Your task to perform on an android device: toggle priority inbox in the gmail app Image 0: 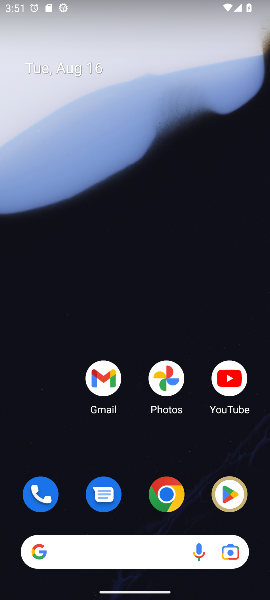
Step 0: drag from (194, 529) to (250, 289)
Your task to perform on an android device: toggle priority inbox in the gmail app Image 1: 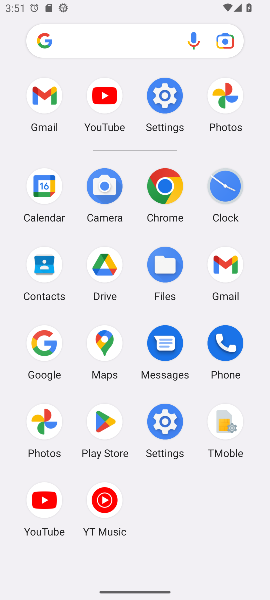
Step 1: click (233, 275)
Your task to perform on an android device: toggle priority inbox in the gmail app Image 2: 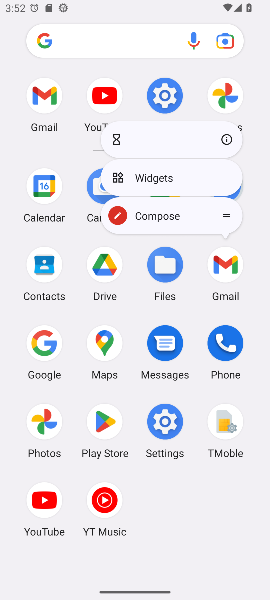
Step 2: click (225, 264)
Your task to perform on an android device: toggle priority inbox in the gmail app Image 3: 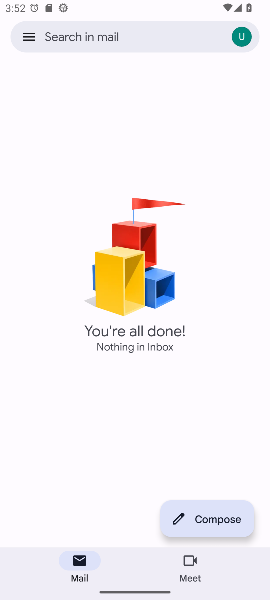
Step 3: click (19, 37)
Your task to perform on an android device: toggle priority inbox in the gmail app Image 4: 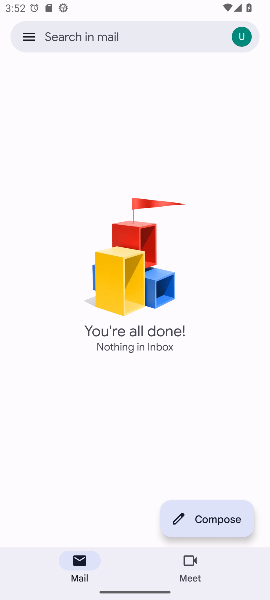
Step 4: click (31, 37)
Your task to perform on an android device: toggle priority inbox in the gmail app Image 5: 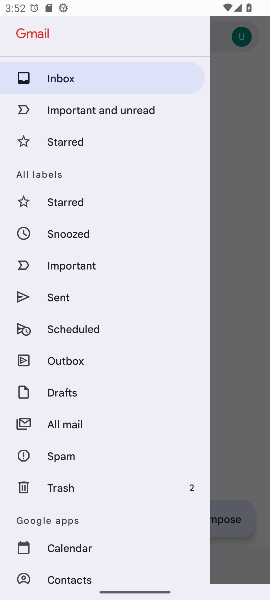
Step 5: drag from (88, 484) to (69, 13)
Your task to perform on an android device: toggle priority inbox in the gmail app Image 6: 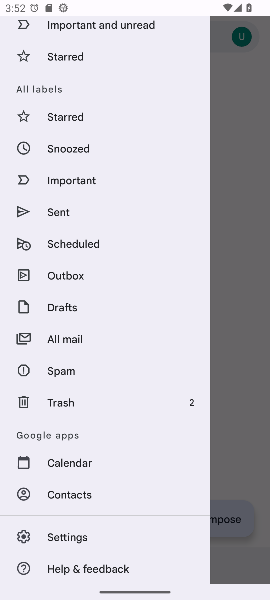
Step 6: drag from (66, 561) to (60, 394)
Your task to perform on an android device: toggle priority inbox in the gmail app Image 7: 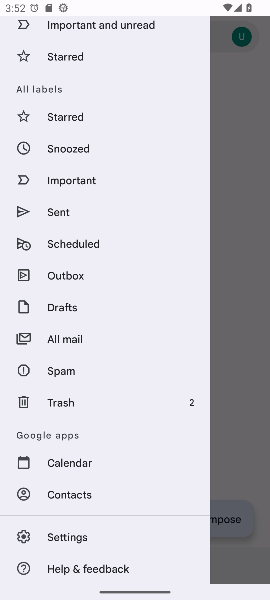
Step 7: click (56, 527)
Your task to perform on an android device: toggle priority inbox in the gmail app Image 8: 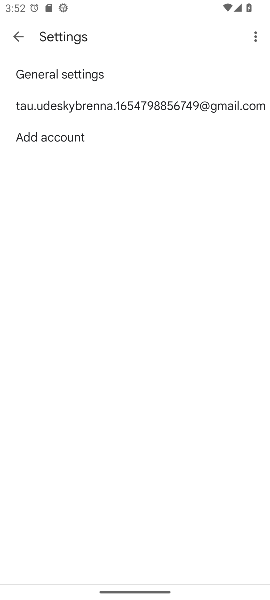
Step 8: click (40, 108)
Your task to perform on an android device: toggle priority inbox in the gmail app Image 9: 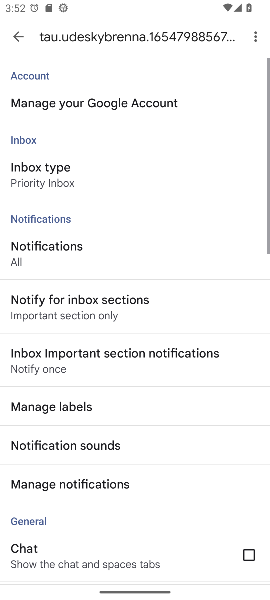
Step 9: click (28, 179)
Your task to perform on an android device: toggle priority inbox in the gmail app Image 10: 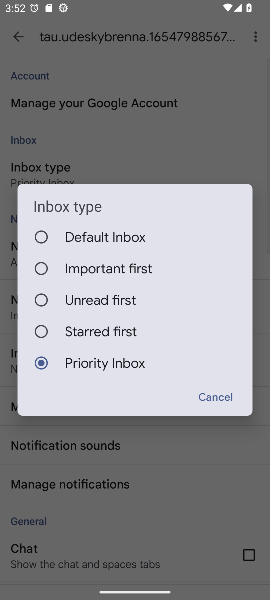
Step 10: click (56, 332)
Your task to perform on an android device: toggle priority inbox in the gmail app Image 11: 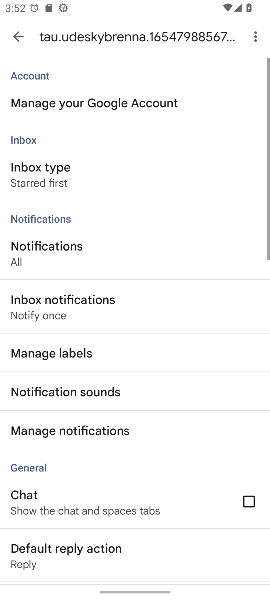
Step 11: task complete